Your task to perform on an android device: Open accessibility settings Image 0: 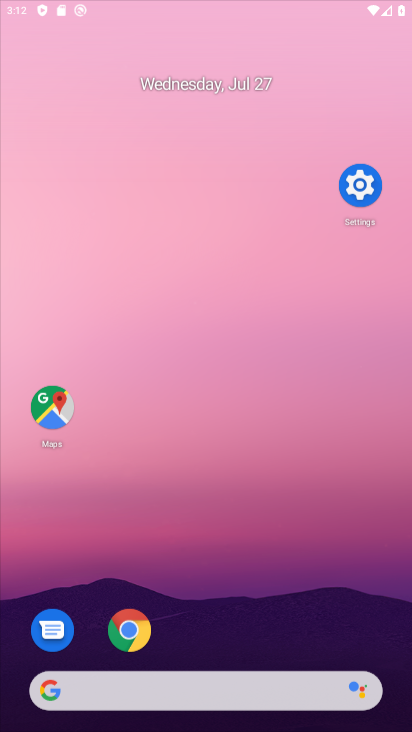
Step 0: press home button
Your task to perform on an android device: Open accessibility settings Image 1: 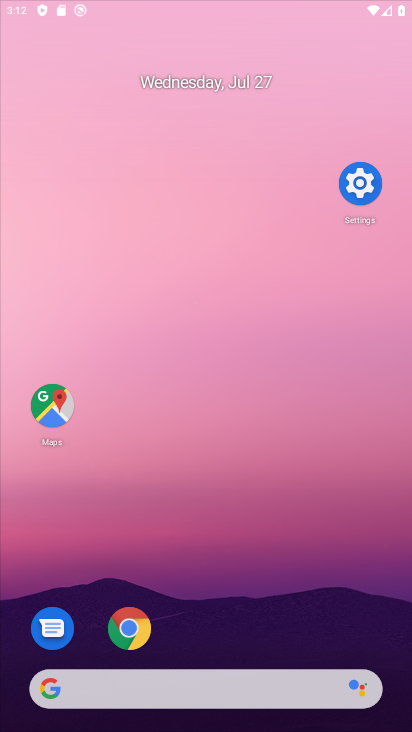
Step 1: press home button
Your task to perform on an android device: Open accessibility settings Image 2: 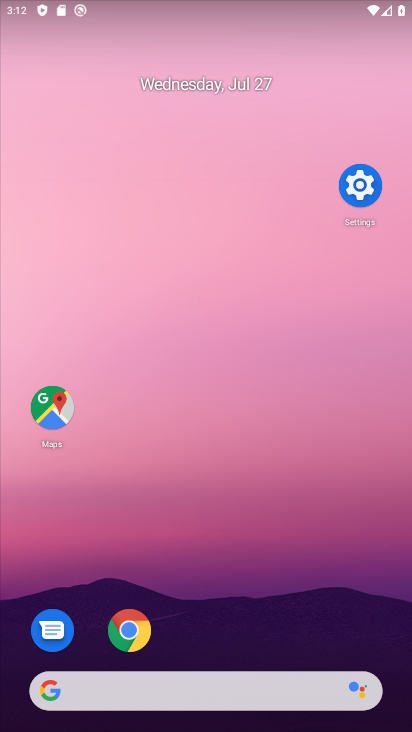
Step 2: drag from (270, 612) to (222, 167)
Your task to perform on an android device: Open accessibility settings Image 3: 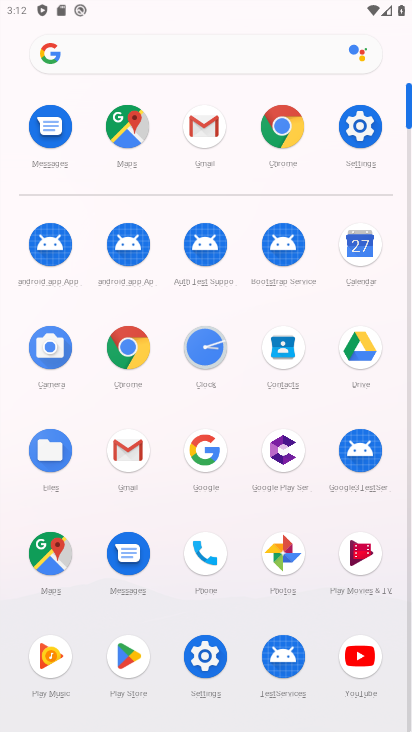
Step 3: click (353, 120)
Your task to perform on an android device: Open accessibility settings Image 4: 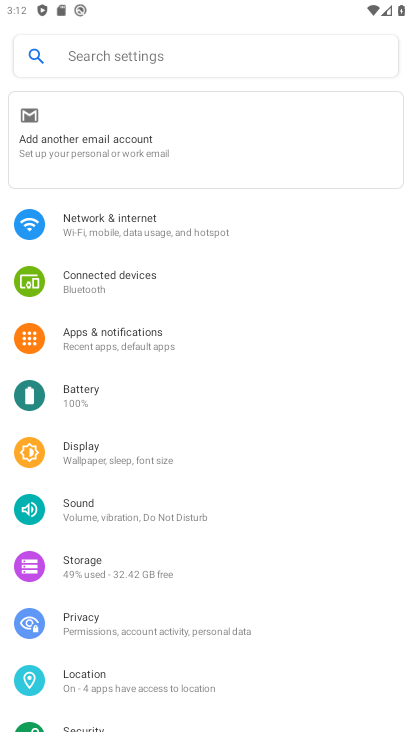
Step 4: drag from (167, 655) to (208, 353)
Your task to perform on an android device: Open accessibility settings Image 5: 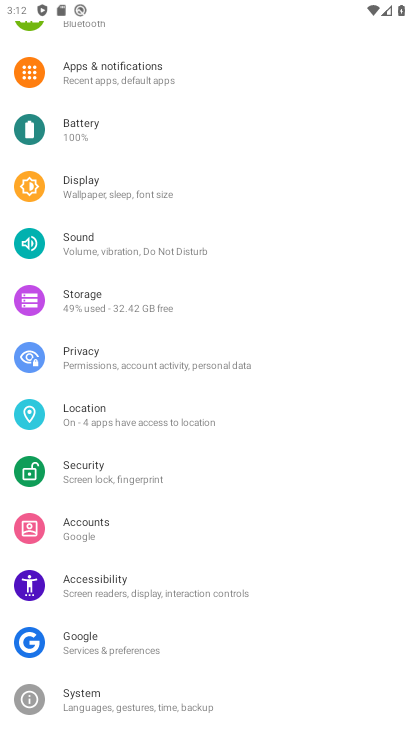
Step 5: click (108, 594)
Your task to perform on an android device: Open accessibility settings Image 6: 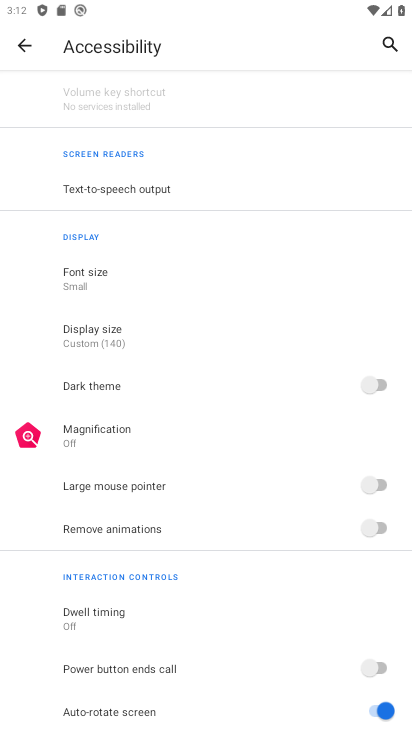
Step 6: task complete